Your task to perform on an android device: add a contact Image 0: 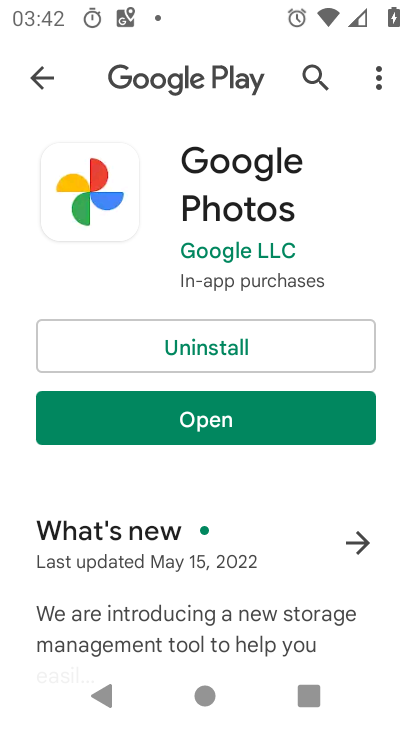
Step 0: press home button
Your task to perform on an android device: add a contact Image 1: 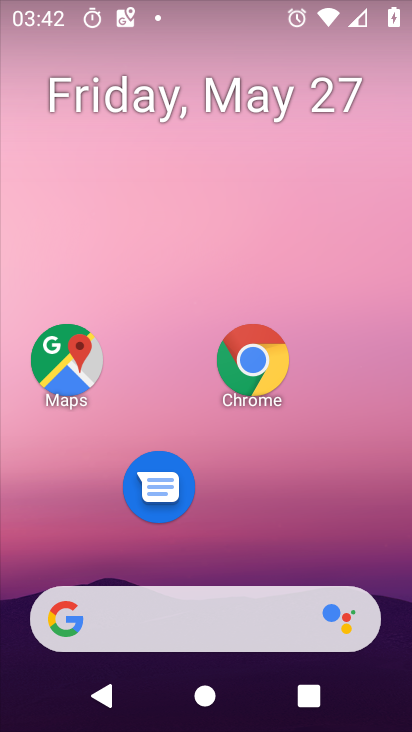
Step 1: drag from (259, 534) to (320, 46)
Your task to perform on an android device: add a contact Image 2: 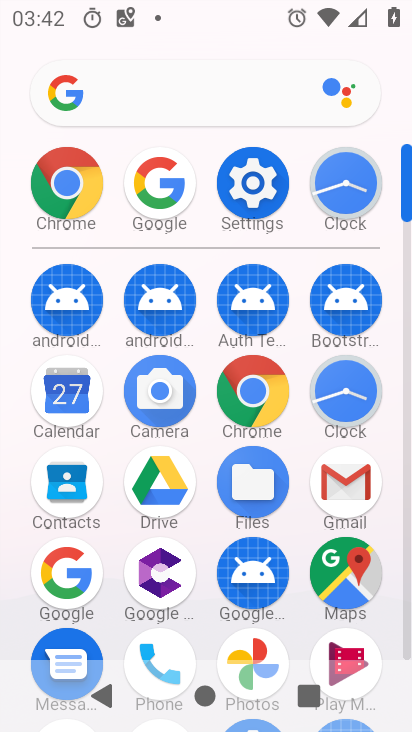
Step 2: click (71, 483)
Your task to perform on an android device: add a contact Image 3: 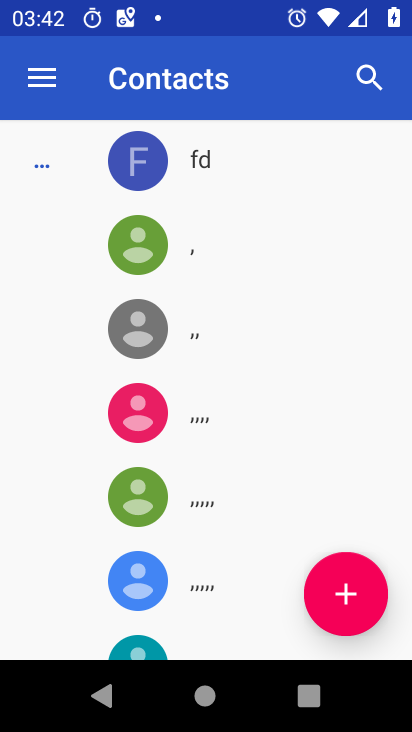
Step 3: click (373, 599)
Your task to perform on an android device: add a contact Image 4: 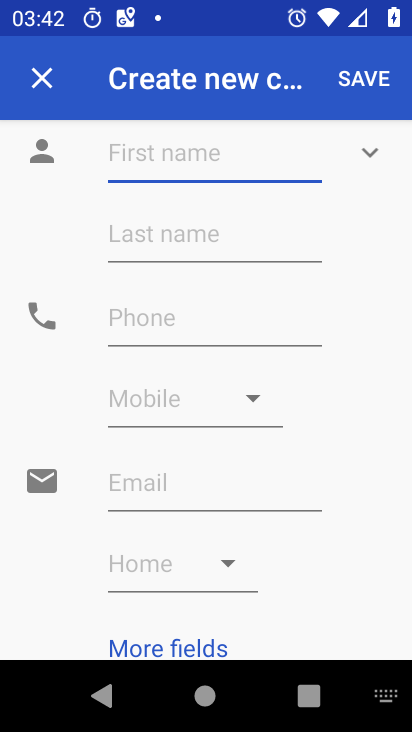
Step 4: type "jydcyjmu"
Your task to perform on an android device: add a contact Image 5: 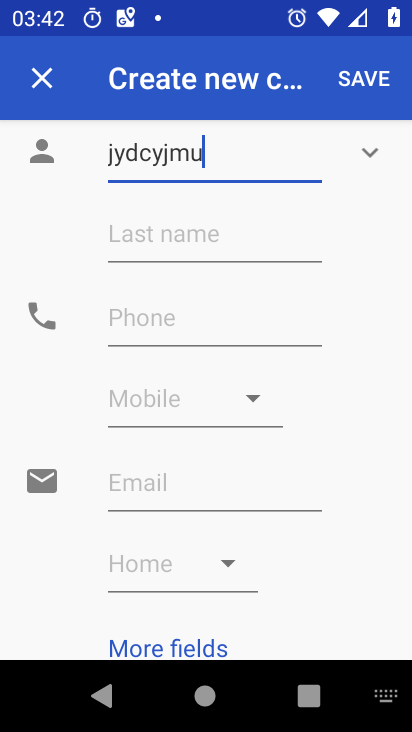
Step 5: click (362, 60)
Your task to perform on an android device: add a contact Image 6: 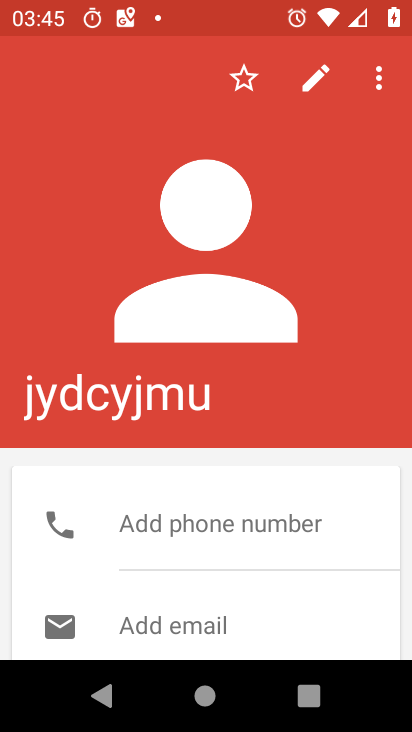
Step 6: task complete